Your task to perform on an android device: Go to notification settings Image 0: 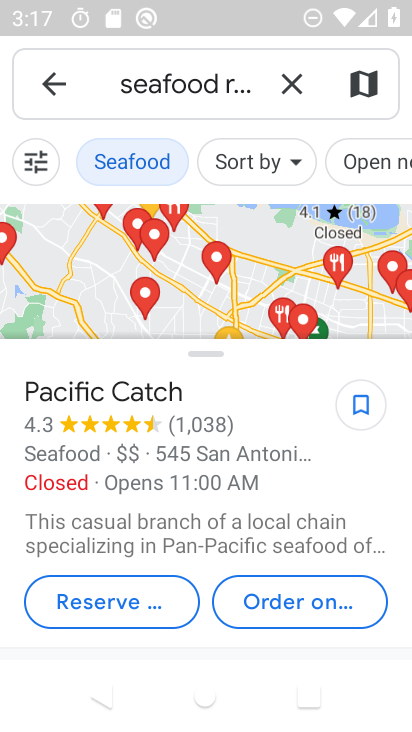
Step 0: press home button
Your task to perform on an android device: Go to notification settings Image 1: 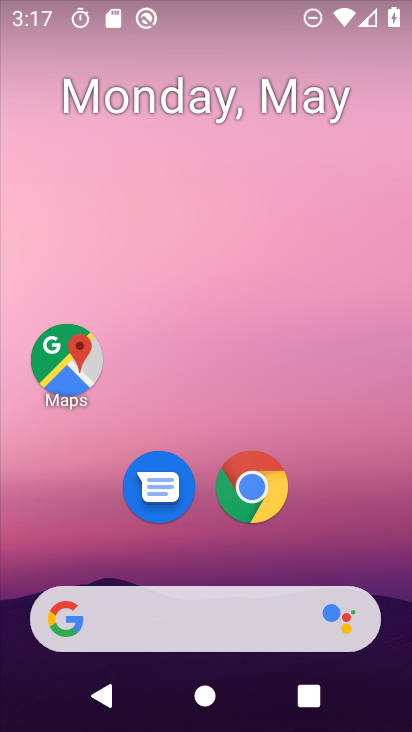
Step 1: drag from (198, 571) to (277, 28)
Your task to perform on an android device: Go to notification settings Image 2: 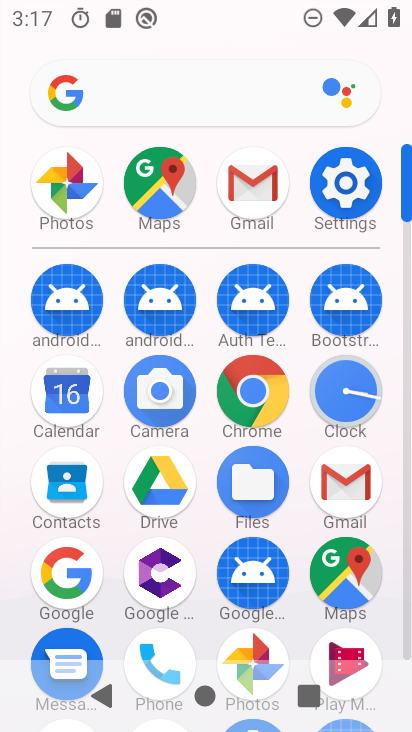
Step 2: click (343, 225)
Your task to perform on an android device: Go to notification settings Image 3: 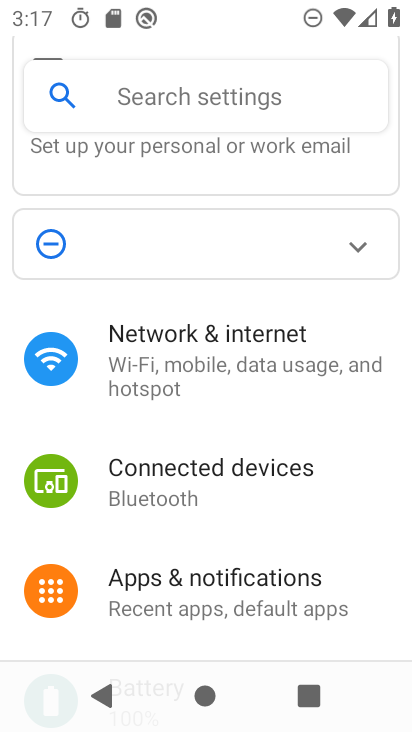
Step 3: click (193, 577)
Your task to perform on an android device: Go to notification settings Image 4: 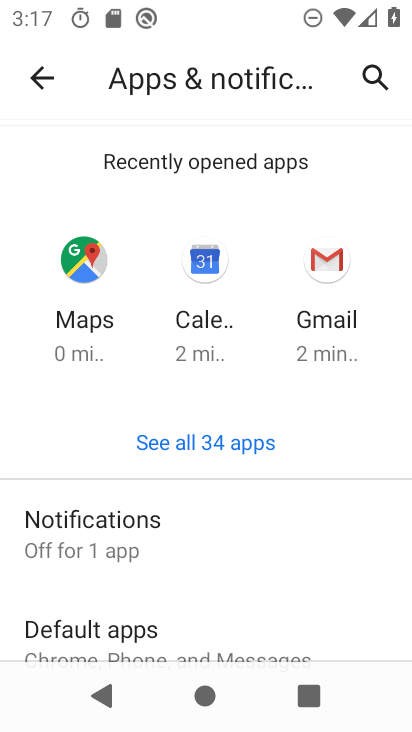
Step 4: drag from (117, 564) to (121, 329)
Your task to perform on an android device: Go to notification settings Image 5: 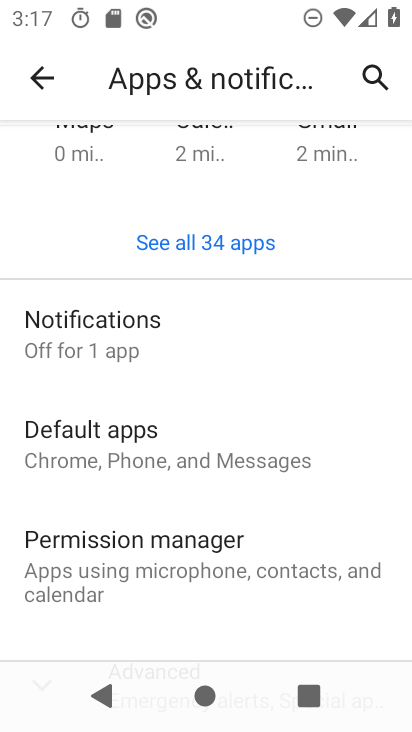
Step 5: click (92, 344)
Your task to perform on an android device: Go to notification settings Image 6: 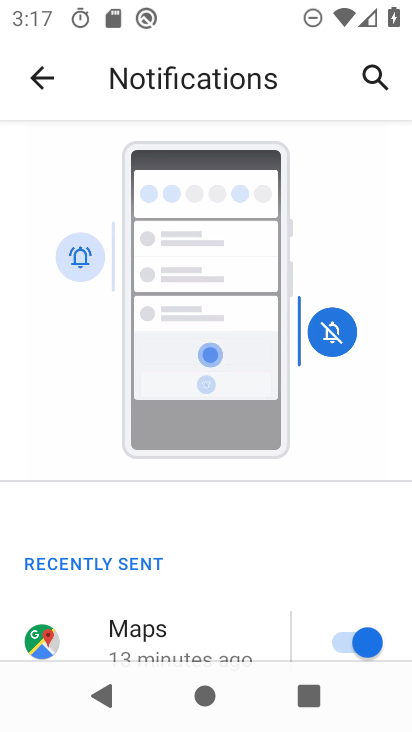
Step 6: task complete